Your task to perform on an android device: View the shopping cart on target.com. Add "alienware area 51" to the cart on target.com, then select checkout. Image 0: 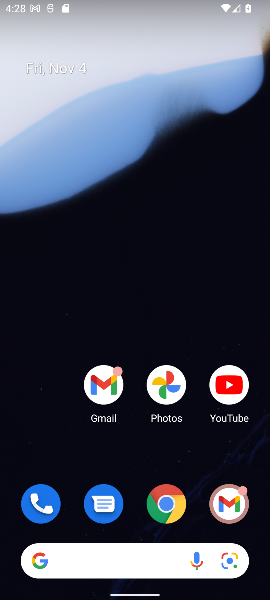
Step 0: click (167, 508)
Your task to perform on an android device: View the shopping cart on target.com. Add "alienware area 51" to the cart on target.com, then select checkout. Image 1: 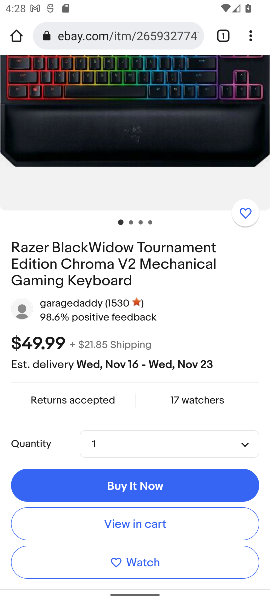
Step 1: click (124, 38)
Your task to perform on an android device: View the shopping cart on target.com. Add "alienware area 51" to the cart on target.com, then select checkout. Image 2: 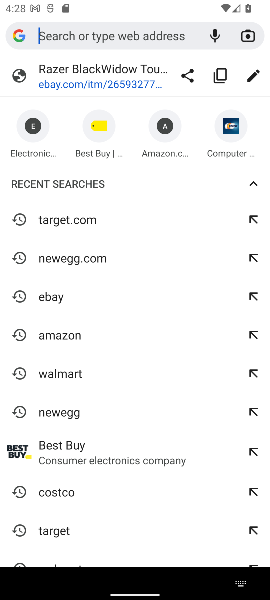
Step 2: click (51, 536)
Your task to perform on an android device: View the shopping cart on target.com. Add "alienware area 51" to the cart on target.com, then select checkout. Image 3: 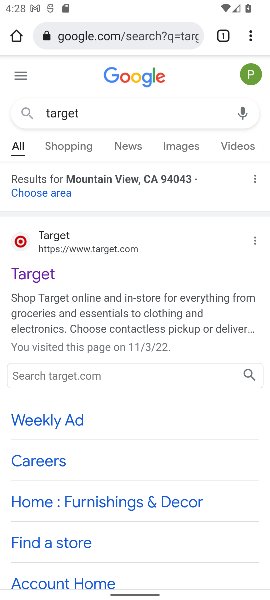
Step 3: click (68, 253)
Your task to perform on an android device: View the shopping cart on target.com. Add "alienware area 51" to the cart on target.com, then select checkout. Image 4: 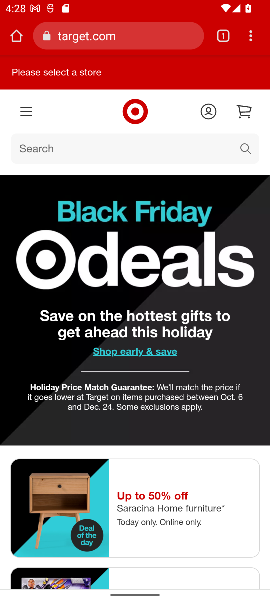
Step 4: click (248, 110)
Your task to perform on an android device: View the shopping cart on target.com. Add "alienware area 51" to the cart on target.com, then select checkout. Image 5: 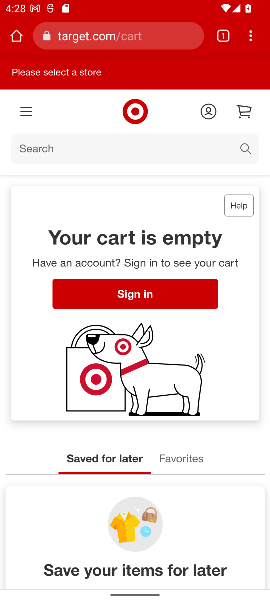
Step 5: click (248, 149)
Your task to perform on an android device: View the shopping cart on target.com. Add "alienware area 51" to the cart on target.com, then select checkout. Image 6: 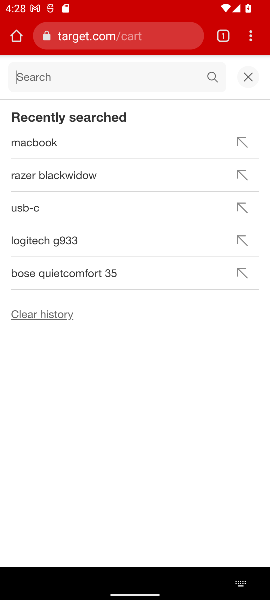
Step 6: type "alienware area 51"
Your task to perform on an android device: View the shopping cart on target.com. Add "alienware area 51" to the cart on target.com, then select checkout. Image 7: 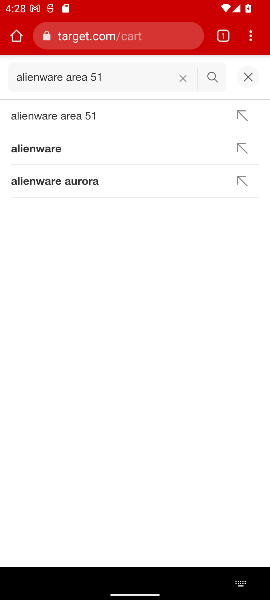
Step 7: click (75, 118)
Your task to perform on an android device: View the shopping cart on target.com. Add "alienware area 51" to the cart on target.com, then select checkout. Image 8: 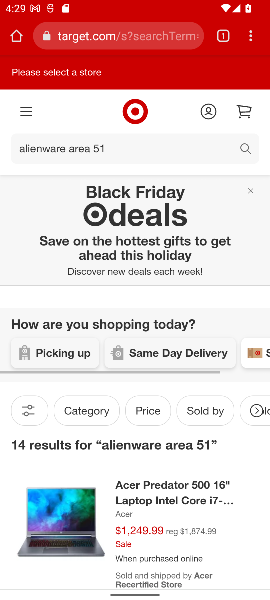
Step 8: drag from (136, 446) to (147, 222)
Your task to perform on an android device: View the shopping cart on target.com. Add "alienware area 51" to the cart on target.com, then select checkout. Image 9: 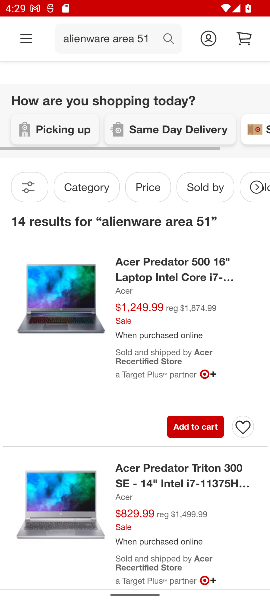
Step 9: drag from (88, 435) to (96, 292)
Your task to perform on an android device: View the shopping cart on target.com. Add "alienware area 51" to the cart on target.com, then select checkout. Image 10: 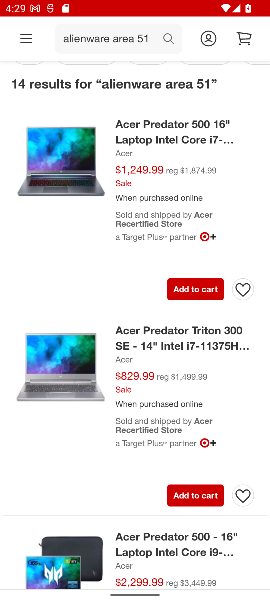
Step 10: drag from (54, 481) to (67, 271)
Your task to perform on an android device: View the shopping cart on target.com. Add "alienware area 51" to the cart on target.com, then select checkout. Image 11: 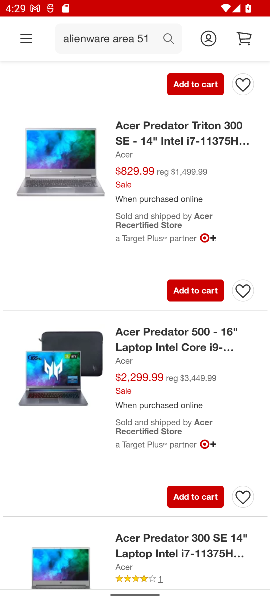
Step 11: drag from (81, 485) to (72, 261)
Your task to perform on an android device: View the shopping cart on target.com. Add "alienware area 51" to the cart on target.com, then select checkout. Image 12: 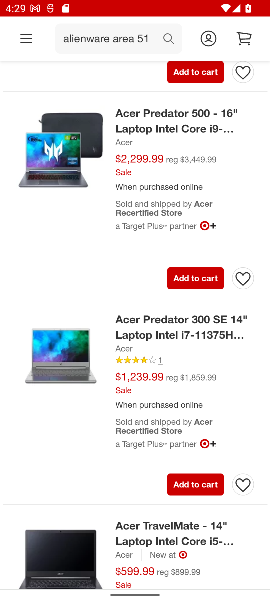
Step 12: drag from (87, 490) to (103, 280)
Your task to perform on an android device: View the shopping cart on target.com. Add "alienware area 51" to the cart on target.com, then select checkout. Image 13: 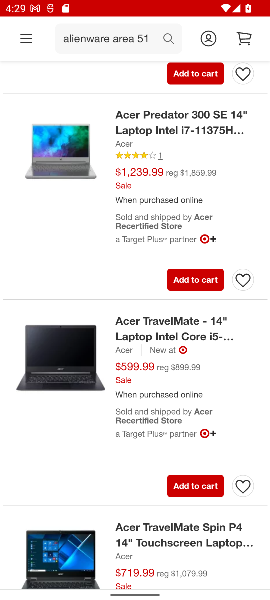
Step 13: drag from (86, 489) to (102, 218)
Your task to perform on an android device: View the shopping cart on target.com. Add "alienware area 51" to the cart on target.com, then select checkout. Image 14: 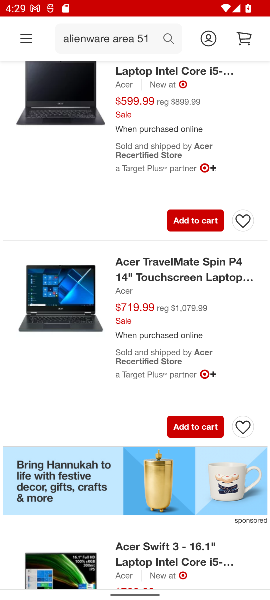
Step 14: drag from (103, 503) to (105, 267)
Your task to perform on an android device: View the shopping cart on target.com. Add "alienware area 51" to the cart on target.com, then select checkout. Image 15: 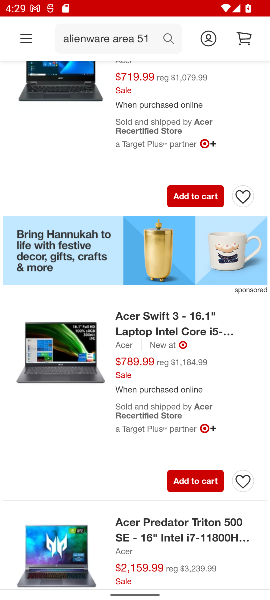
Step 15: drag from (72, 503) to (85, 262)
Your task to perform on an android device: View the shopping cart on target.com. Add "alienware area 51" to the cart on target.com, then select checkout. Image 16: 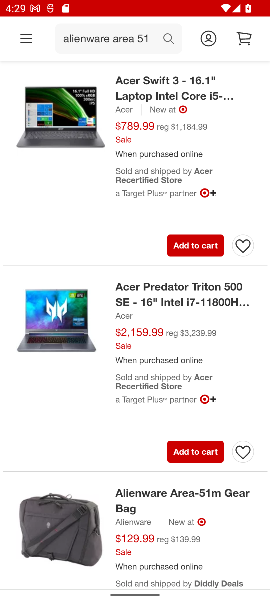
Step 16: drag from (74, 521) to (67, 312)
Your task to perform on an android device: View the shopping cart on target.com. Add "alienware area 51" to the cart on target.com, then select checkout. Image 17: 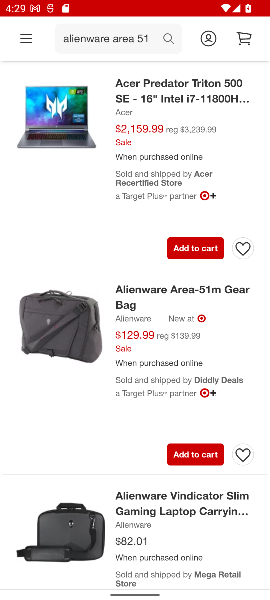
Step 17: click (65, 341)
Your task to perform on an android device: View the shopping cart on target.com. Add "alienware area 51" to the cart on target.com, then select checkout. Image 18: 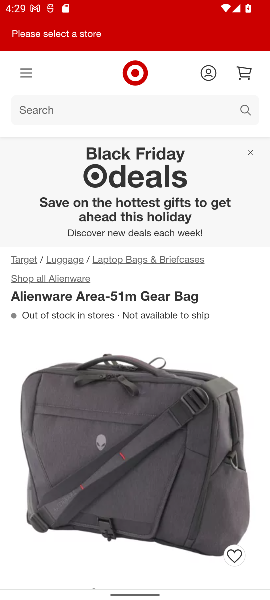
Step 18: drag from (113, 390) to (142, 184)
Your task to perform on an android device: View the shopping cart on target.com. Add "alienware area 51" to the cart on target.com, then select checkout. Image 19: 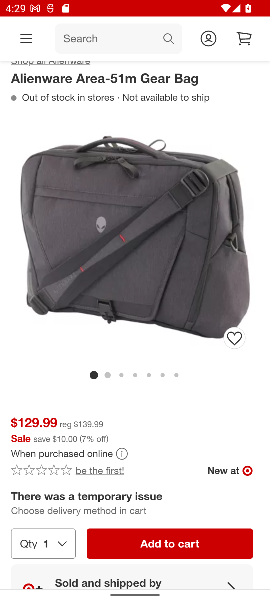
Step 19: click (163, 546)
Your task to perform on an android device: View the shopping cart on target.com. Add "alienware area 51" to the cart on target.com, then select checkout. Image 20: 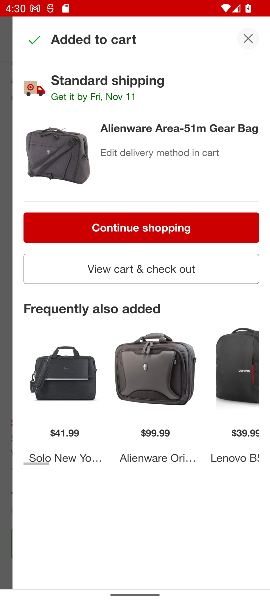
Step 20: click (139, 267)
Your task to perform on an android device: View the shopping cart on target.com. Add "alienware area 51" to the cart on target.com, then select checkout. Image 21: 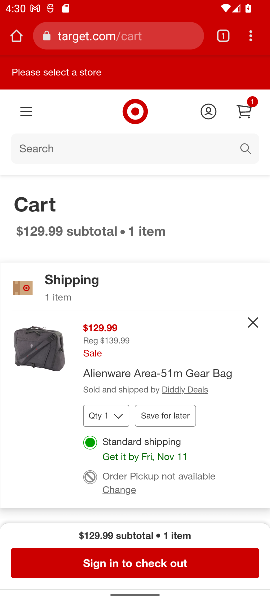
Step 21: click (128, 565)
Your task to perform on an android device: View the shopping cart on target.com. Add "alienware area 51" to the cart on target.com, then select checkout. Image 22: 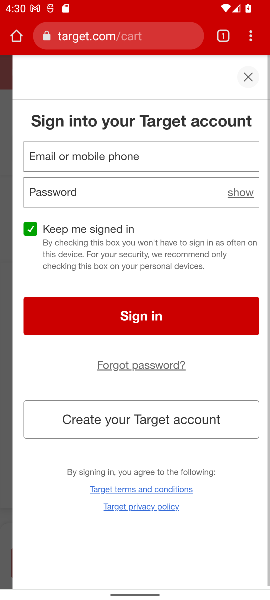
Step 22: task complete